Your task to perform on an android device: Go to battery settings Image 0: 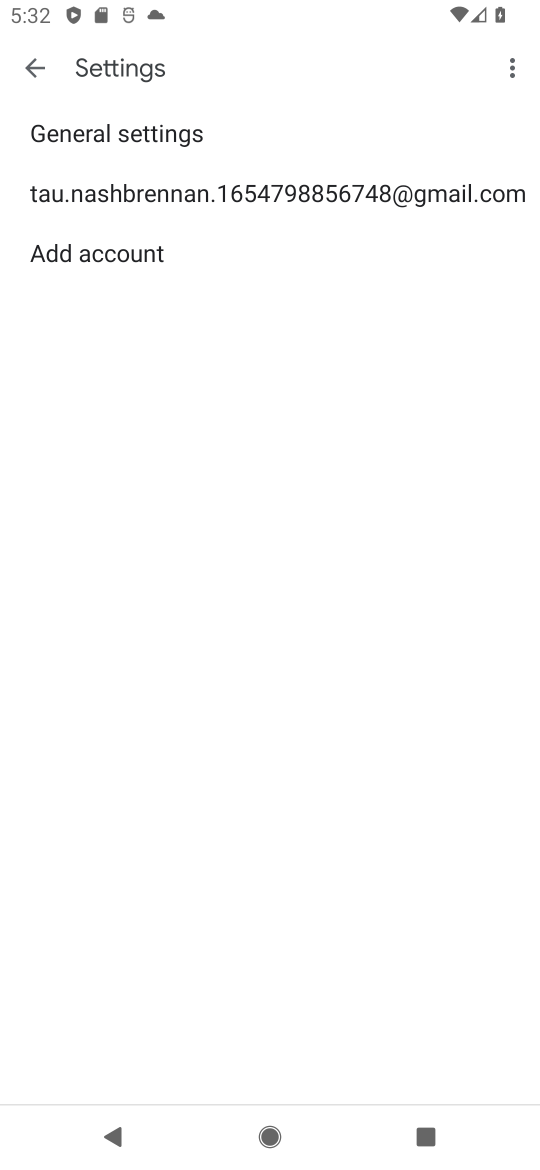
Step 0: press home button
Your task to perform on an android device: Go to battery settings Image 1: 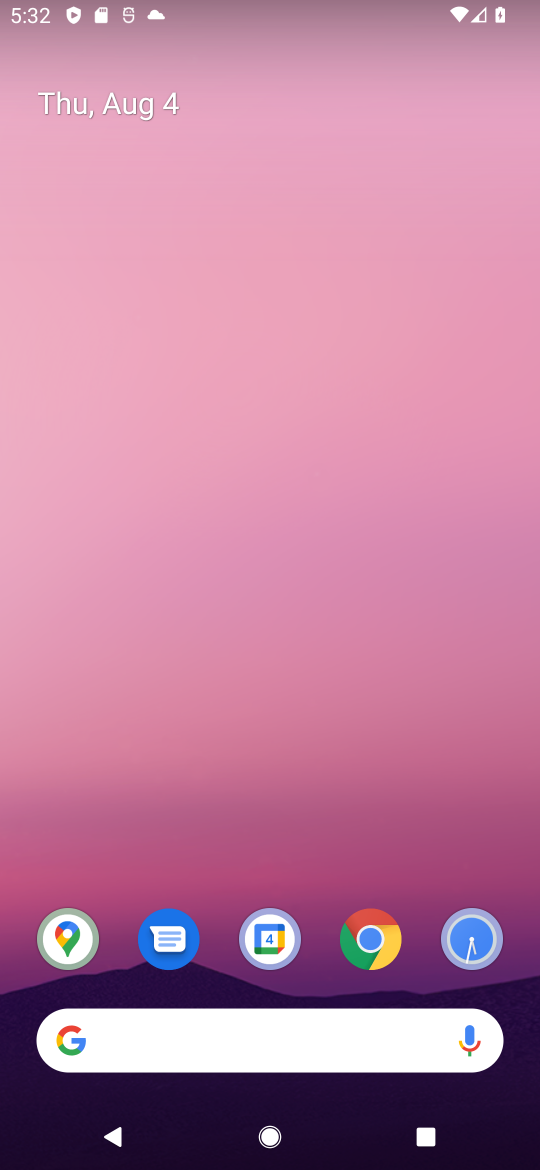
Step 1: drag from (174, 1017) to (266, 368)
Your task to perform on an android device: Go to battery settings Image 2: 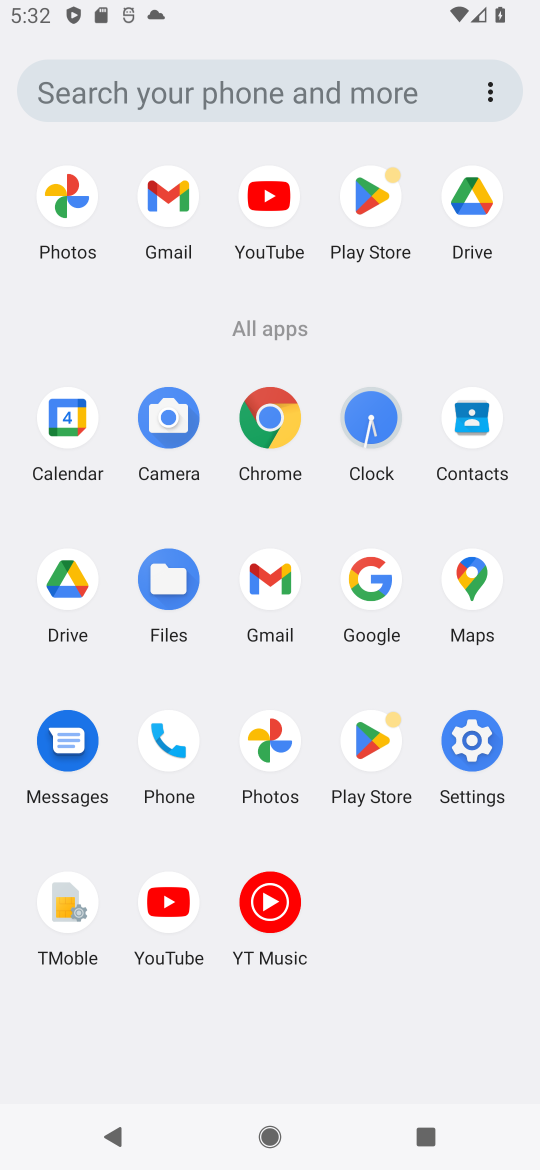
Step 2: click (462, 748)
Your task to perform on an android device: Go to battery settings Image 3: 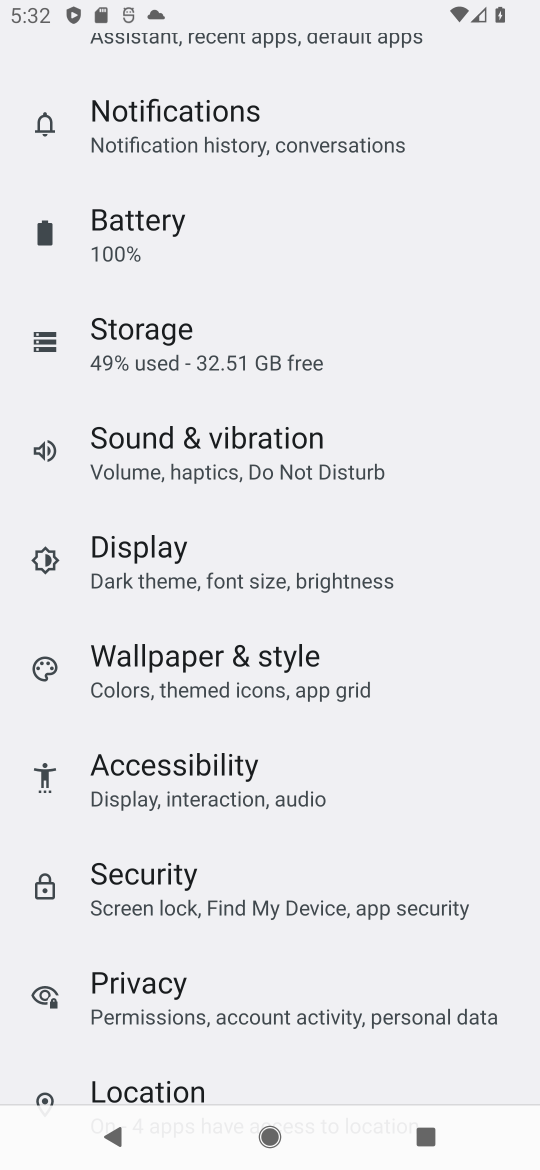
Step 3: click (149, 219)
Your task to perform on an android device: Go to battery settings Image 4: 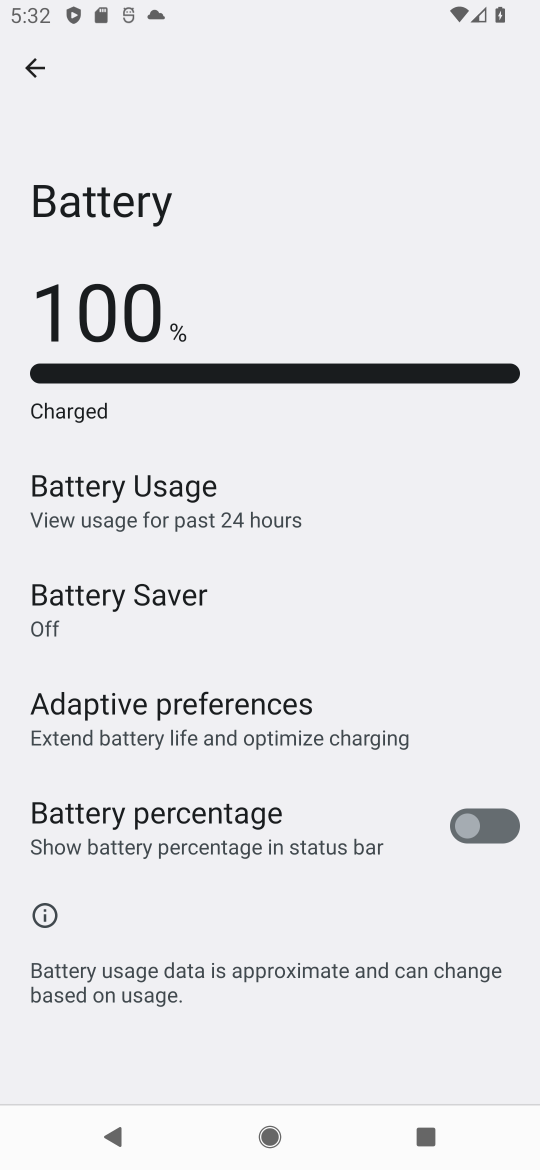
Step 4: task complete